Your task to perform on an android device: move a message to another label in the gmail app Image 0: 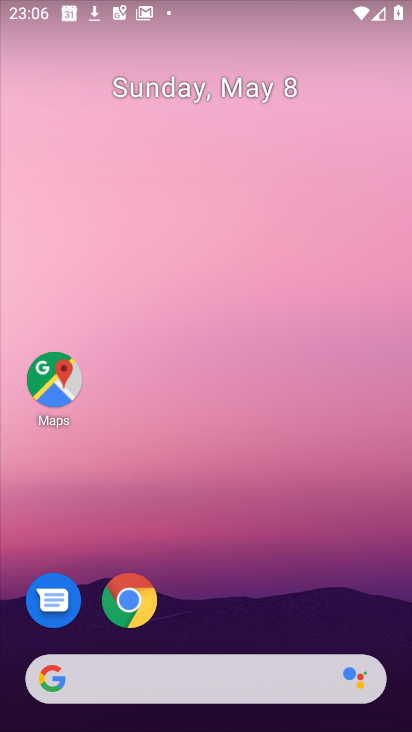
Step 0: drag from (272, 705) to (184, 319)
Your task to perform on an android device: move a message to another label in the gmail app Image 1: 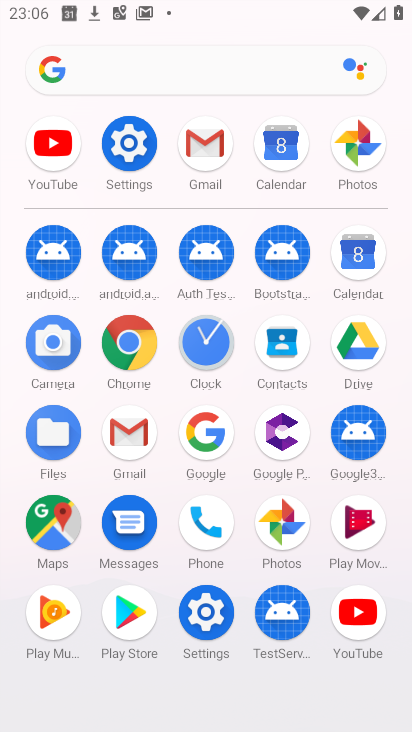
Step 1: click (203, 166)
Your task to perform on an android device: move a message to another label in the gmail app Image 2: 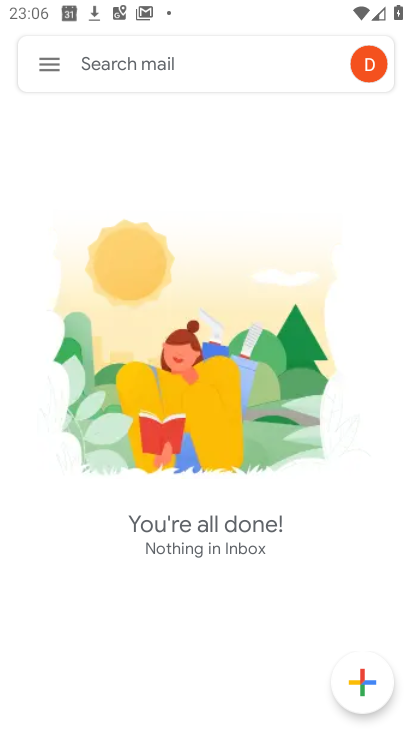
Step 2: click (35, 62)
Your task to perform on an android device: move a message to another label in the gmail app Image 3: 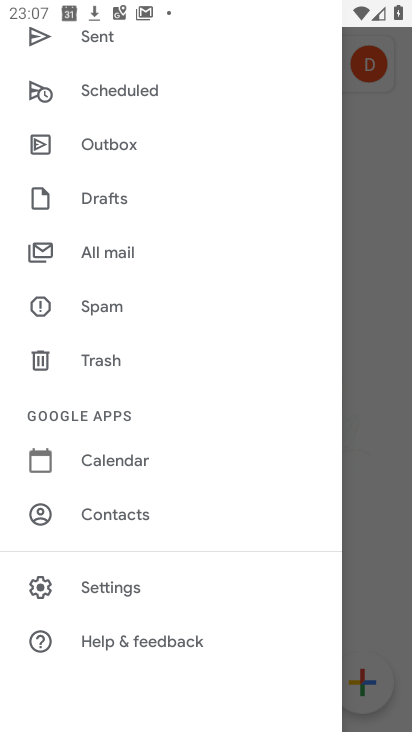
Step 3: click (119, 596)
Your task to perform on an android device: move a message to another label in the gmail app Image 4: 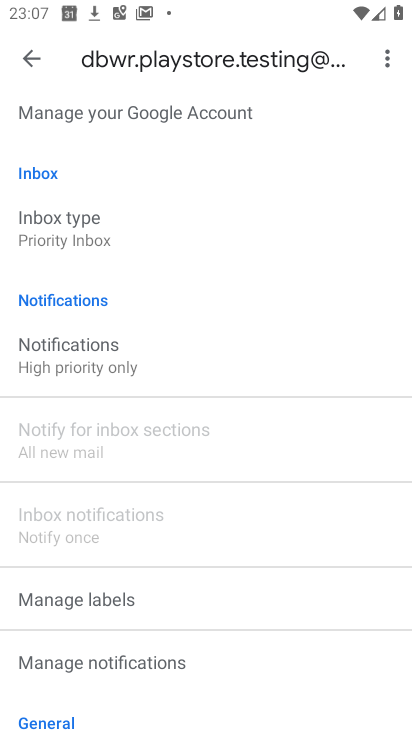
Step 4: click (127, 591)
Your task to perform on an android device: move a message to another label in the gmail app Image 5: 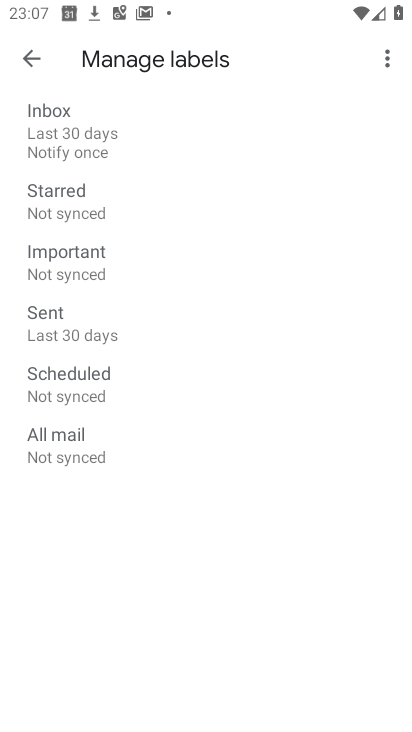
Step 5: click (112, 206)
Your task to perform on an android device: move a message to another label in the gmail app Image 6: 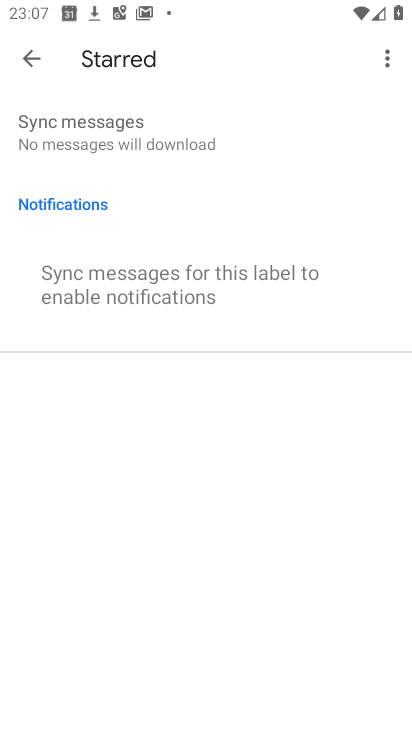
Step 6: task complete